Your task to perform on an android device: What's on my calendar today? Image 0: 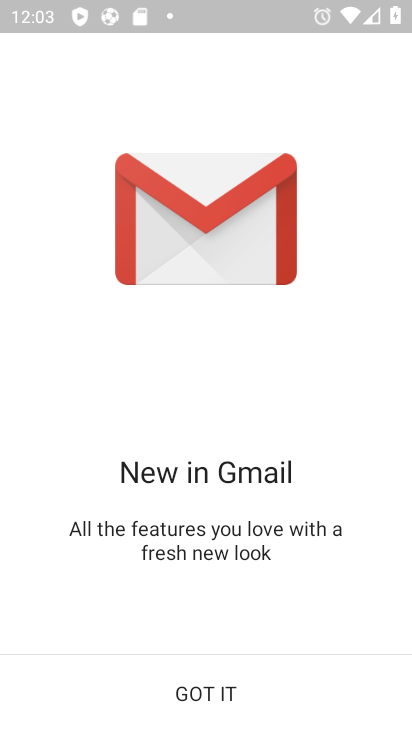
Step 0: click (195, 690)
Your task to perform on an android device: What's on my calendar today? Image 1: 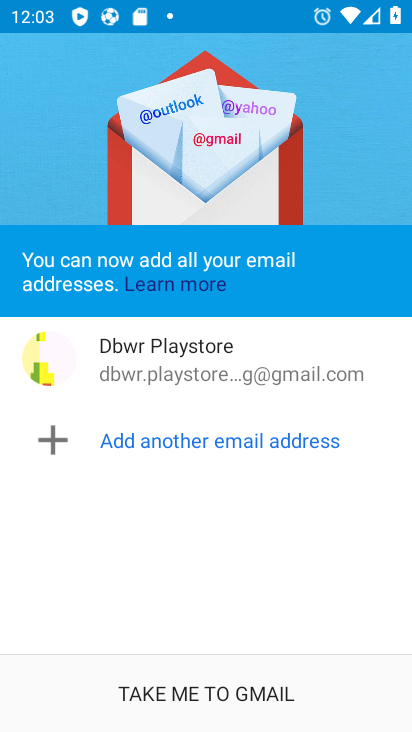
Step 1: press home button
Your task to perform on an android device: What's on my calendar today? Image 2: 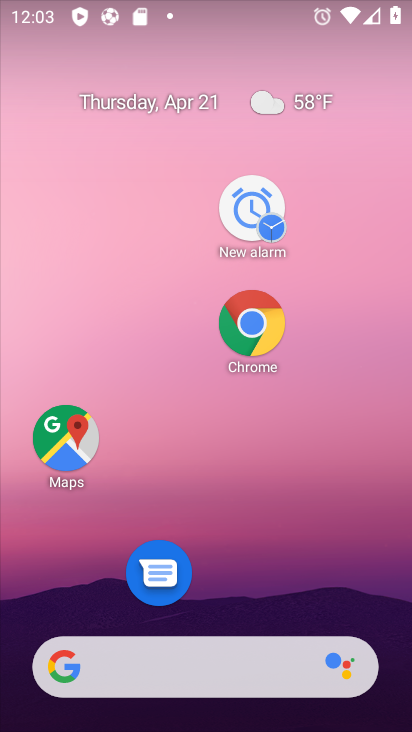
Step 2: drag from (274, 429) to (211, 214)
Your task to perform on an android device: What's on my calendar today? Image 3: 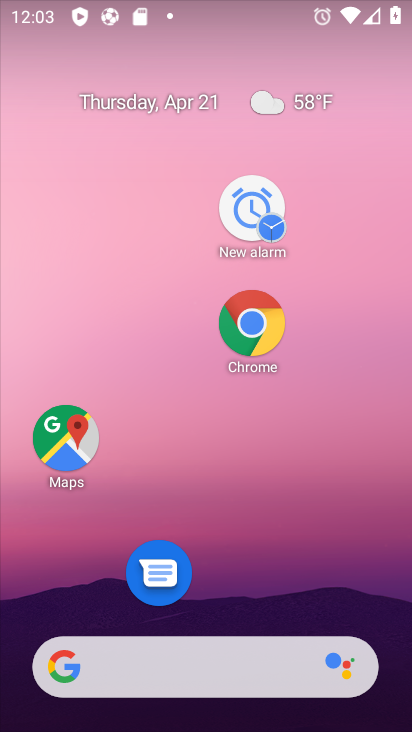
Step 3: drag from (264, 520) to (269, 18)
Your task to perform on an android device: What's on my calendar today? Image 4: 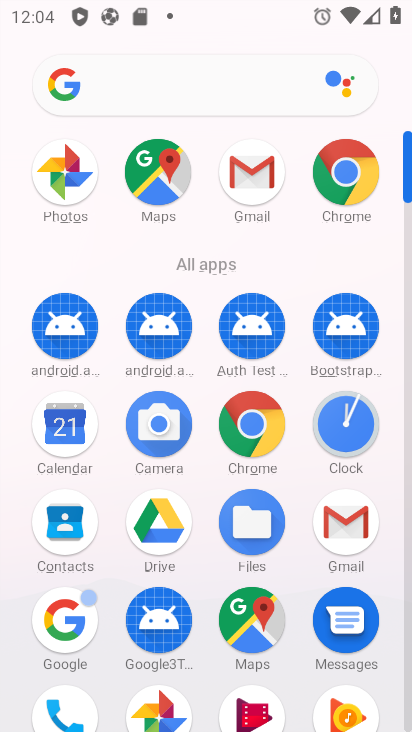
Step 4: click (71, 438)
Your task to perform on an android device: What's on my calendar today? Image 5: 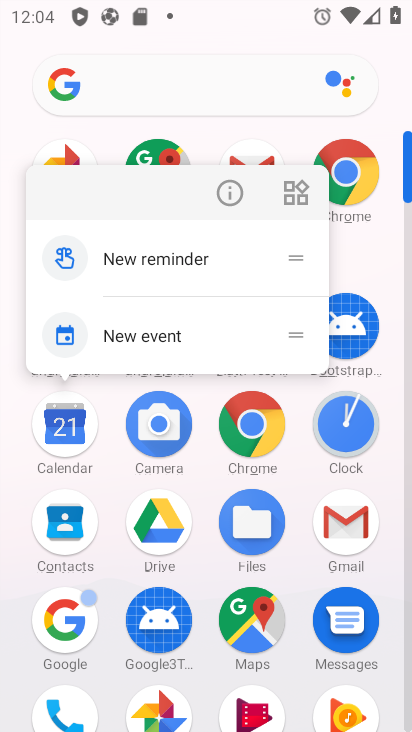
Step 5: click (72, 423)
Your task to perform on an android device: What's on my calendar today? Image 6: 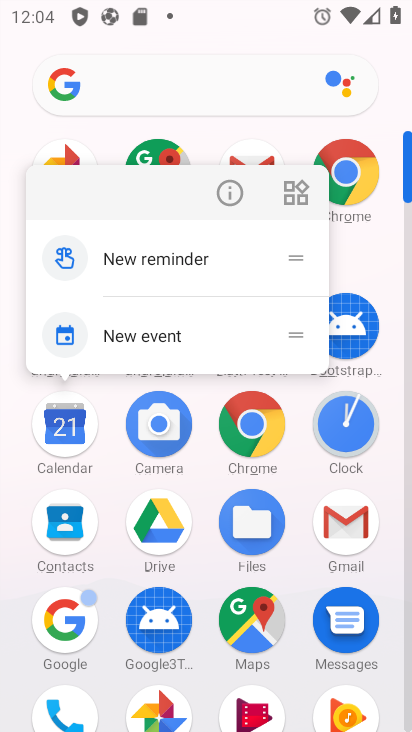
Step 6: click (70, 426)
Your task to perform on an android device: What's on my calendar today? Image 7: 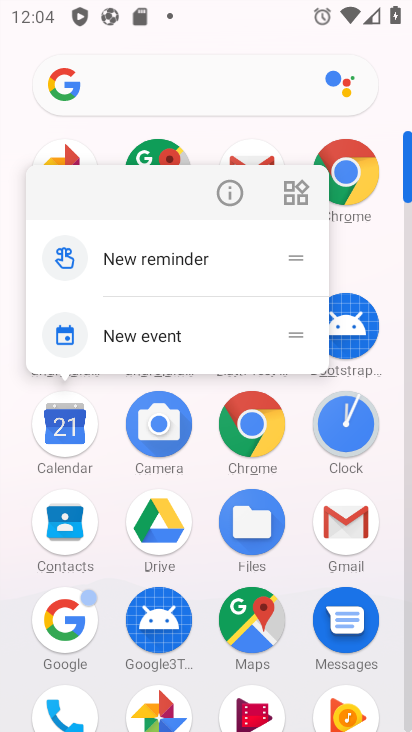
Step 7: click (70, 426)
Your task to perform on an android device: What's on my calendar today? Image 8: 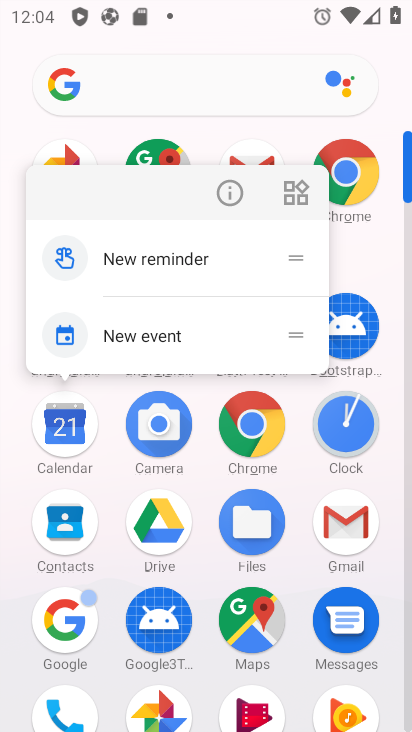
Step 8: click (70, 426)
Your task to perform on an android device: What's on my calendar today? Image 9: 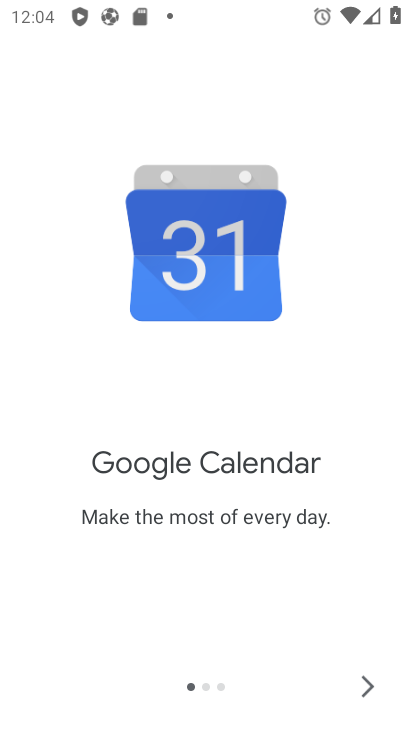
Step 9: click (375, 673)
Your task to perform on an android device: What's on my calendar today? Image 10: 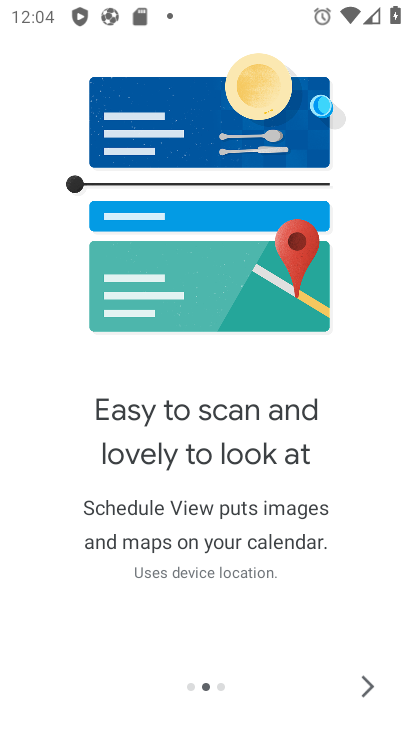
Step 10: click (370, 684)
Your task to perform on an android device: What's on my calendar today? Image 11: 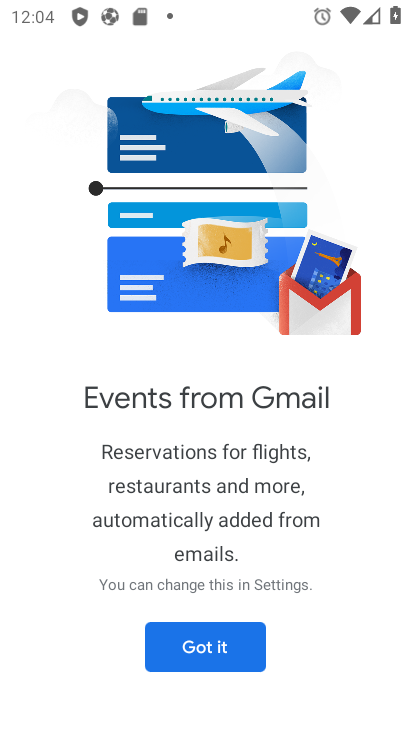
Step 11: click (196, 641)
Your task to perform on an android device: What's on my calendar today? Image 12: 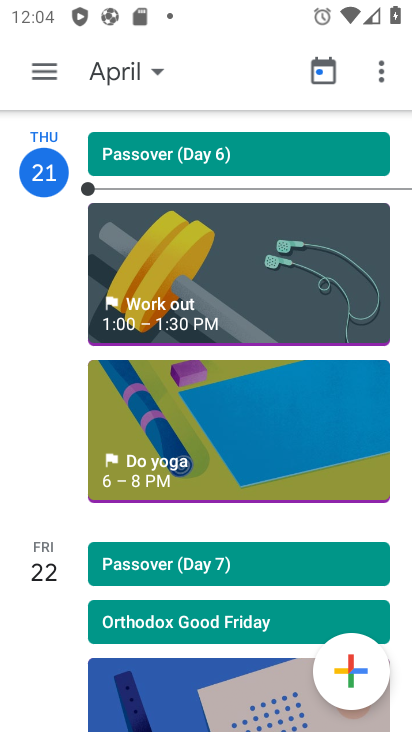
Step 12: task complete